Your task to perform on an android device: open app "AliExpress" (install if not already installed) Image 0: 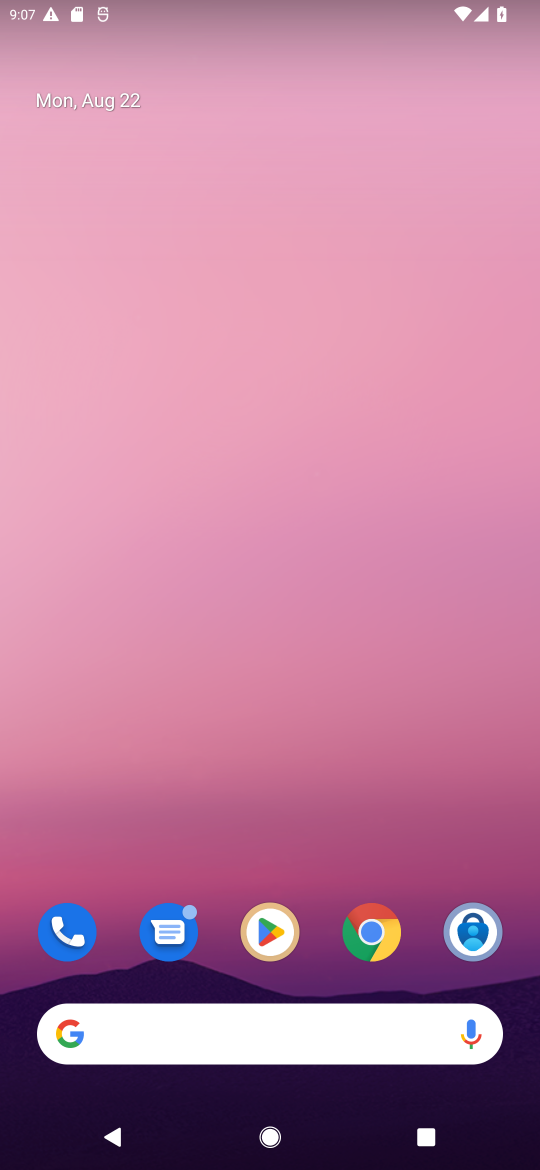
Step 0: click (249, 941)
Your task to perform on an android device: open app "AliExpress" (install if not already installed) Image 1: 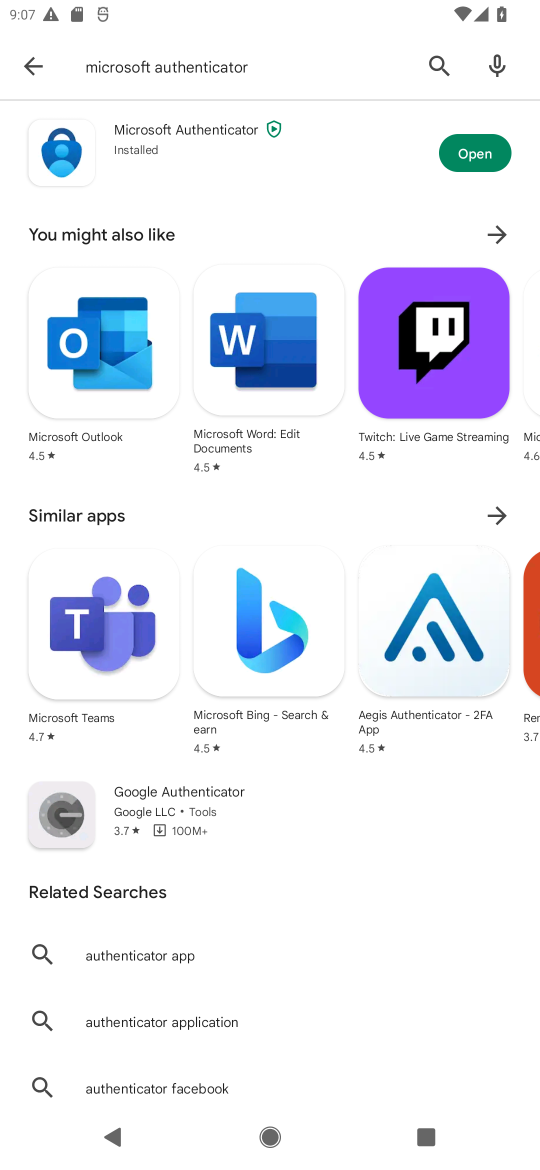
Step 1: click (433, 69)
Your task to perform on an android device: open app "AliExpress" (install if not already installed) Image 2: 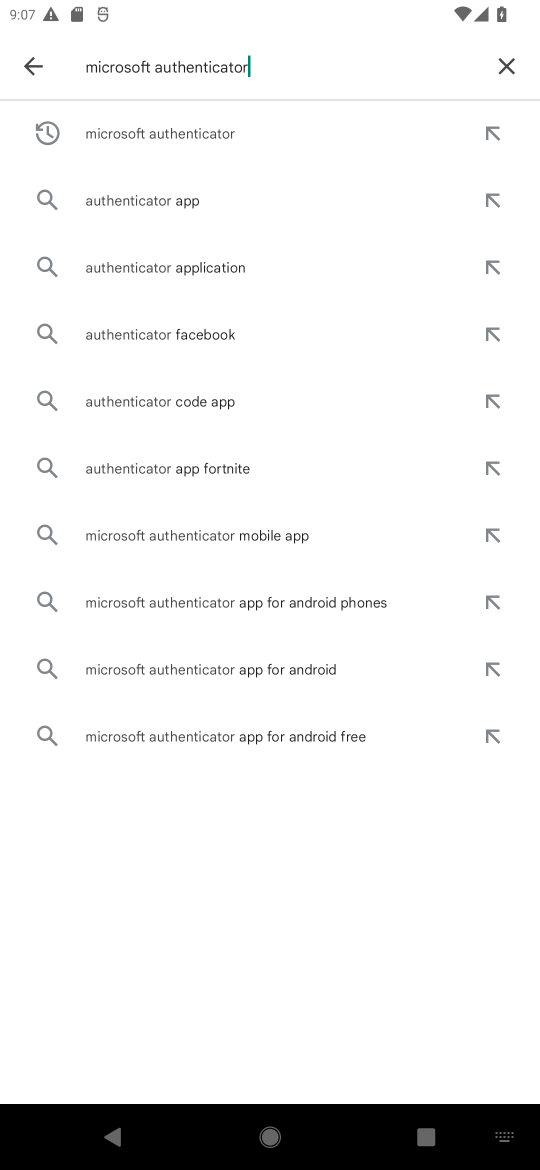
Step 2: click (509, 84)
Your task to perform on an android device: open app "AliExpress" (install if not already installed) Image 3: 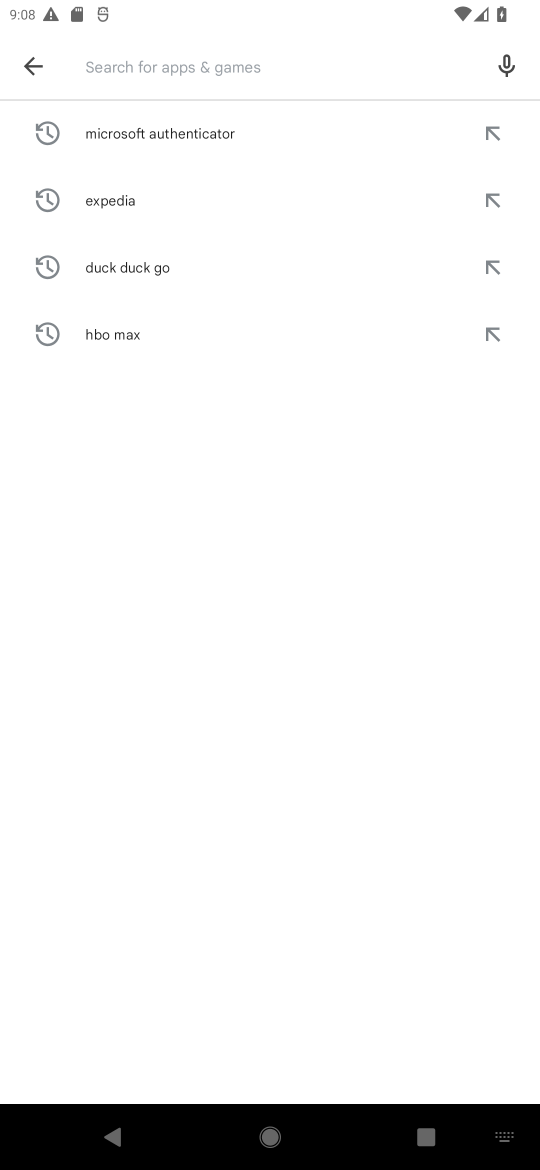
Step 3: type "ali express"
Your task to perform on an android device: open app "AliExpress" (install if not already installed) Image 4: 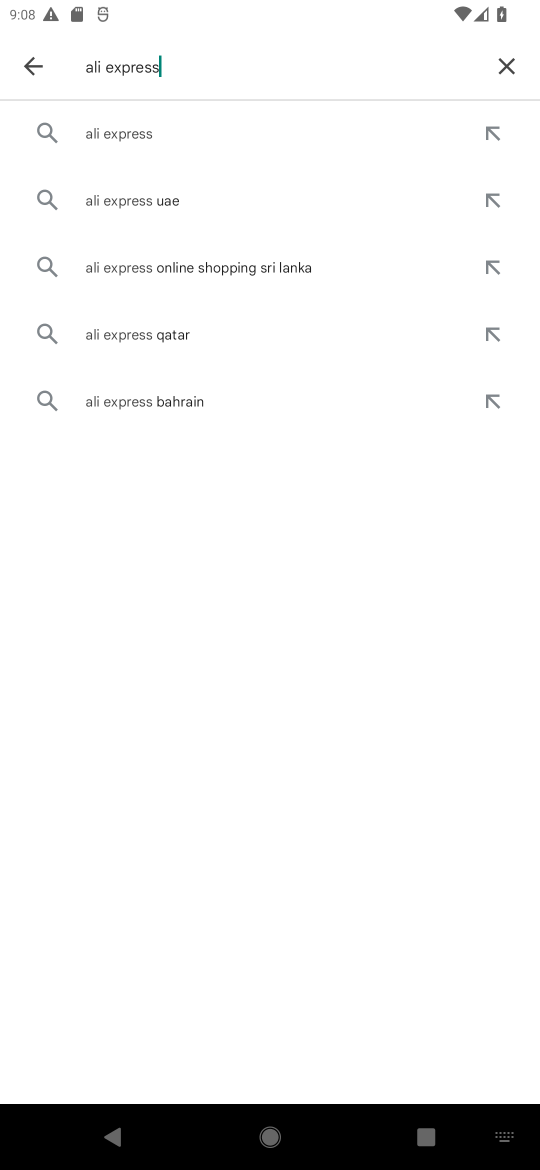
Step 4: click (163, 116)
Your task to perform on an android device: open app "AliExpress" (install if not already installed) Image 5: 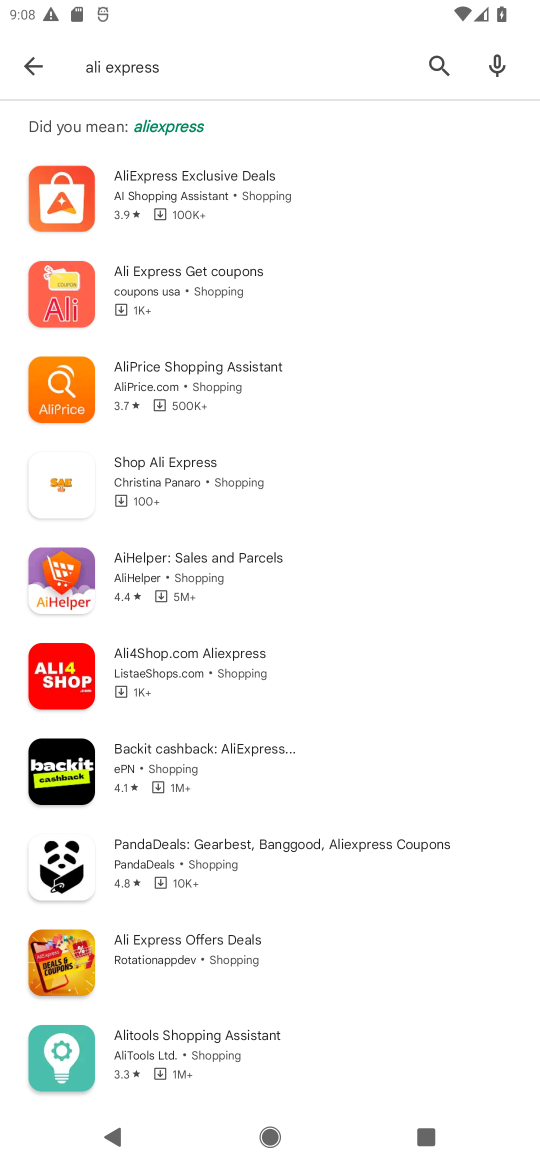
Step 5: click (198, 159)
Your task to perform on an android device: open app "AliExpress" (install if not already installed) Image 6: 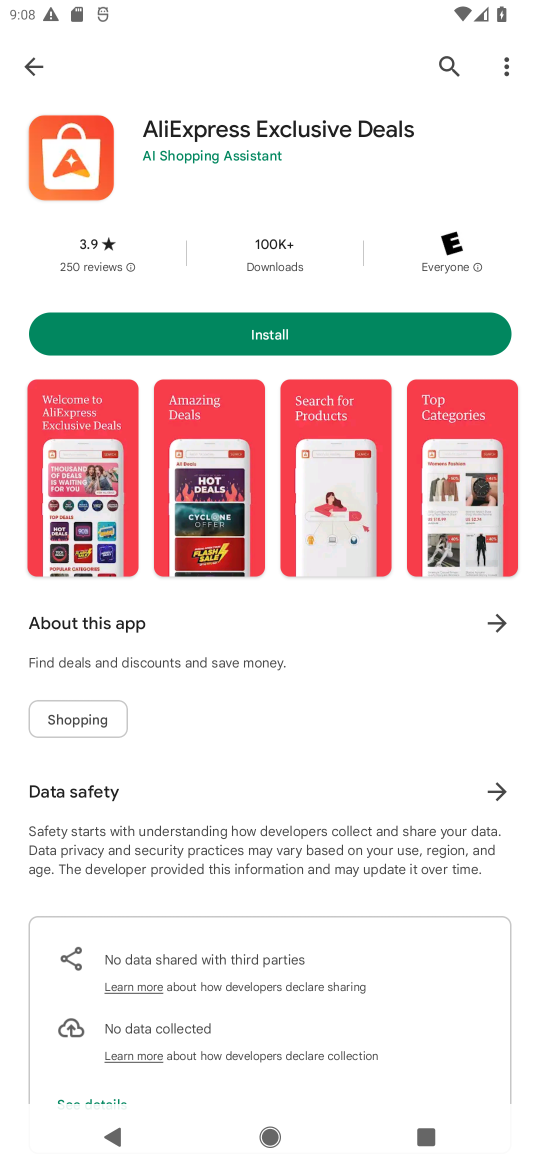
Step 6: click (307, 309)
Your task to perform on an android device: open app "AliExpress" (install if not already installed) Image 7: 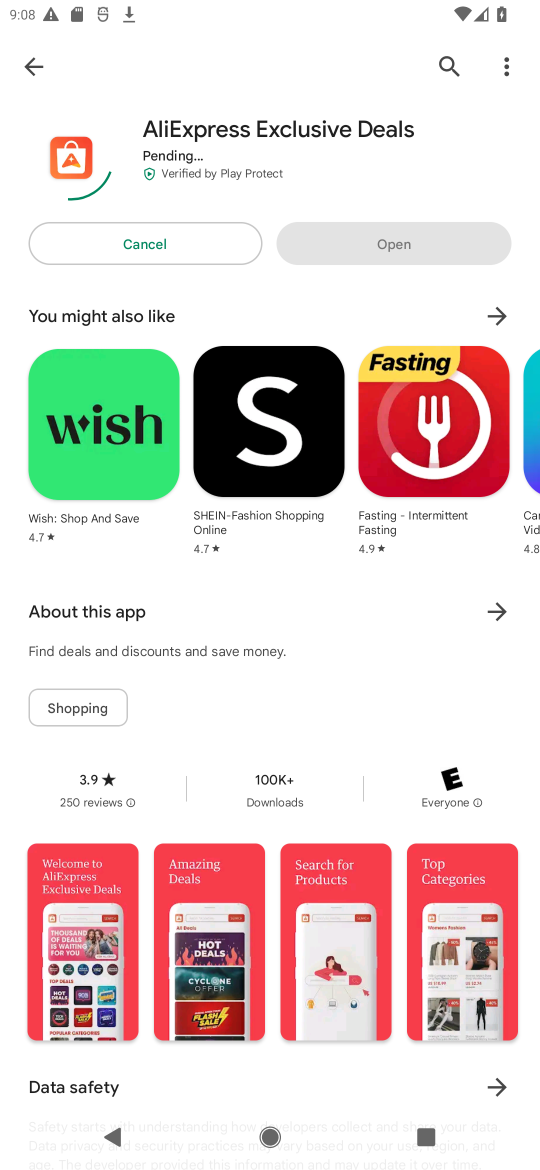
Step 7: task complete